Your task to perform on an android device: Open Google Image 0: 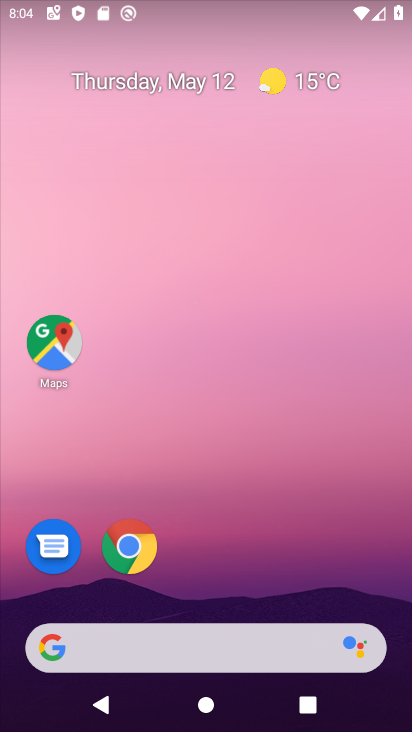
Step 0: drag from (229, 658) to (366, 64)
Your task to perform on an android device: Open Google Image 1: 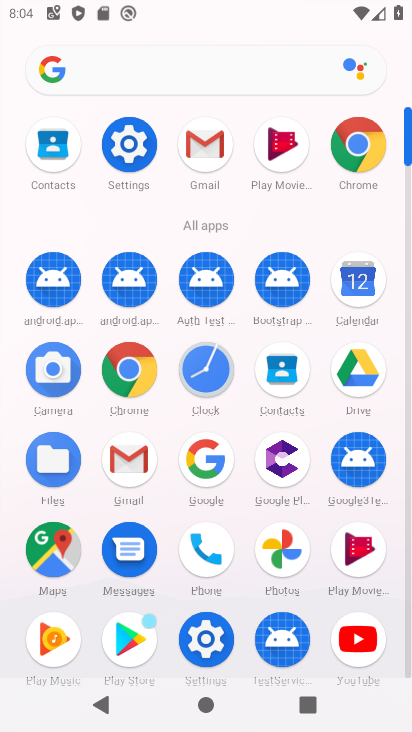
Step 1: click (212, 473)
Your task to perform on an android device: Open Google Image 2: 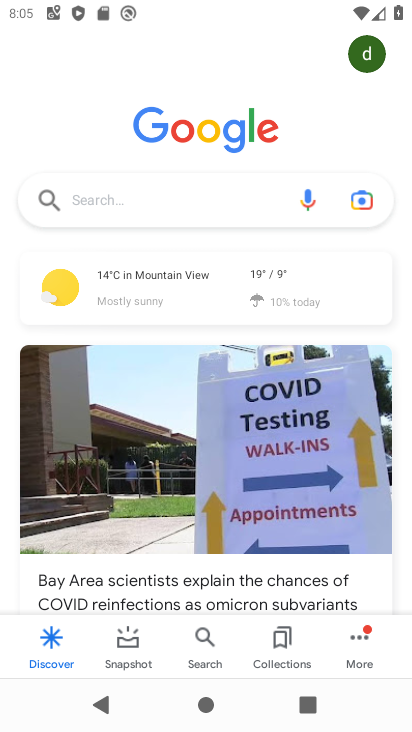
Step 2: task complete